Your task to perform on an android device: turn on bluetooth scan Image 0: 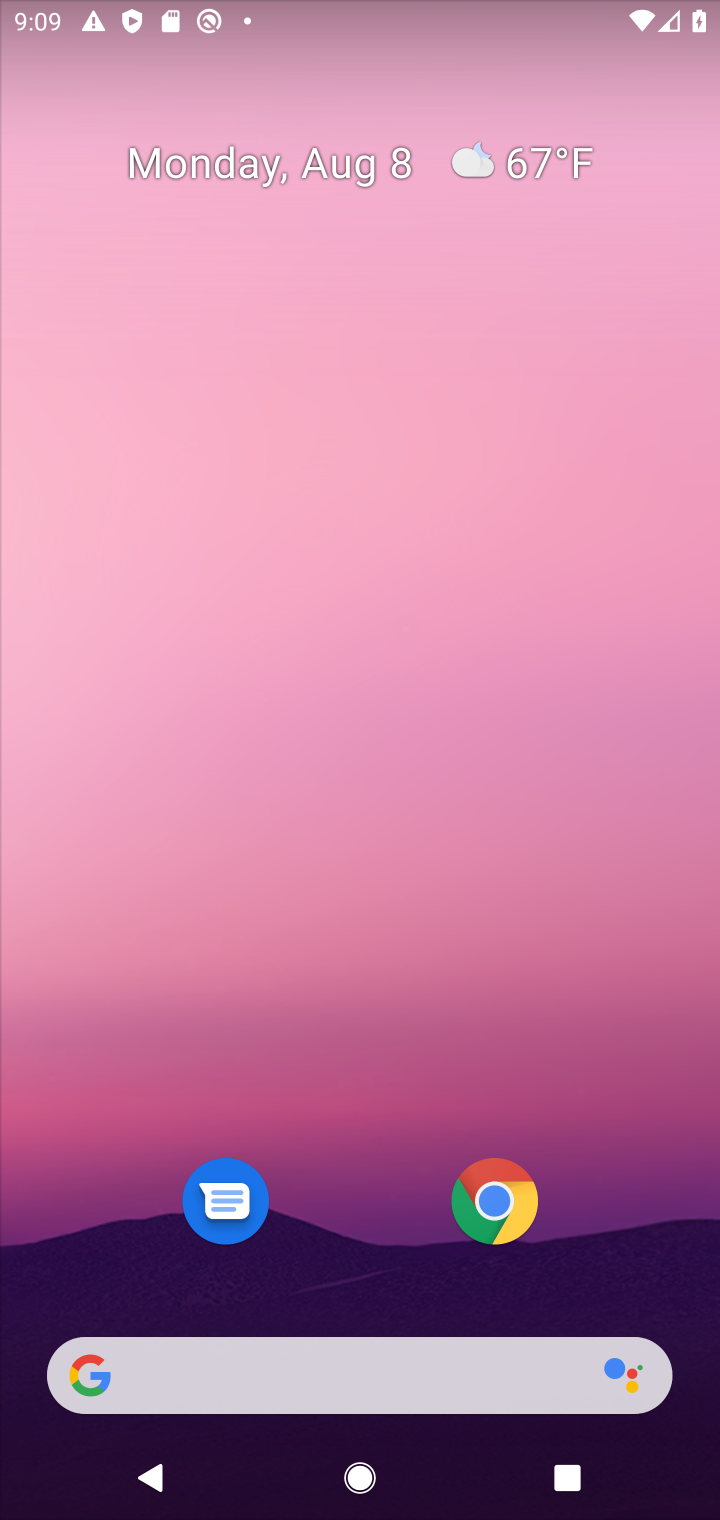
Step 0: press home button
Your task to perform on an android device: turn on bluetooth scan Image 1: 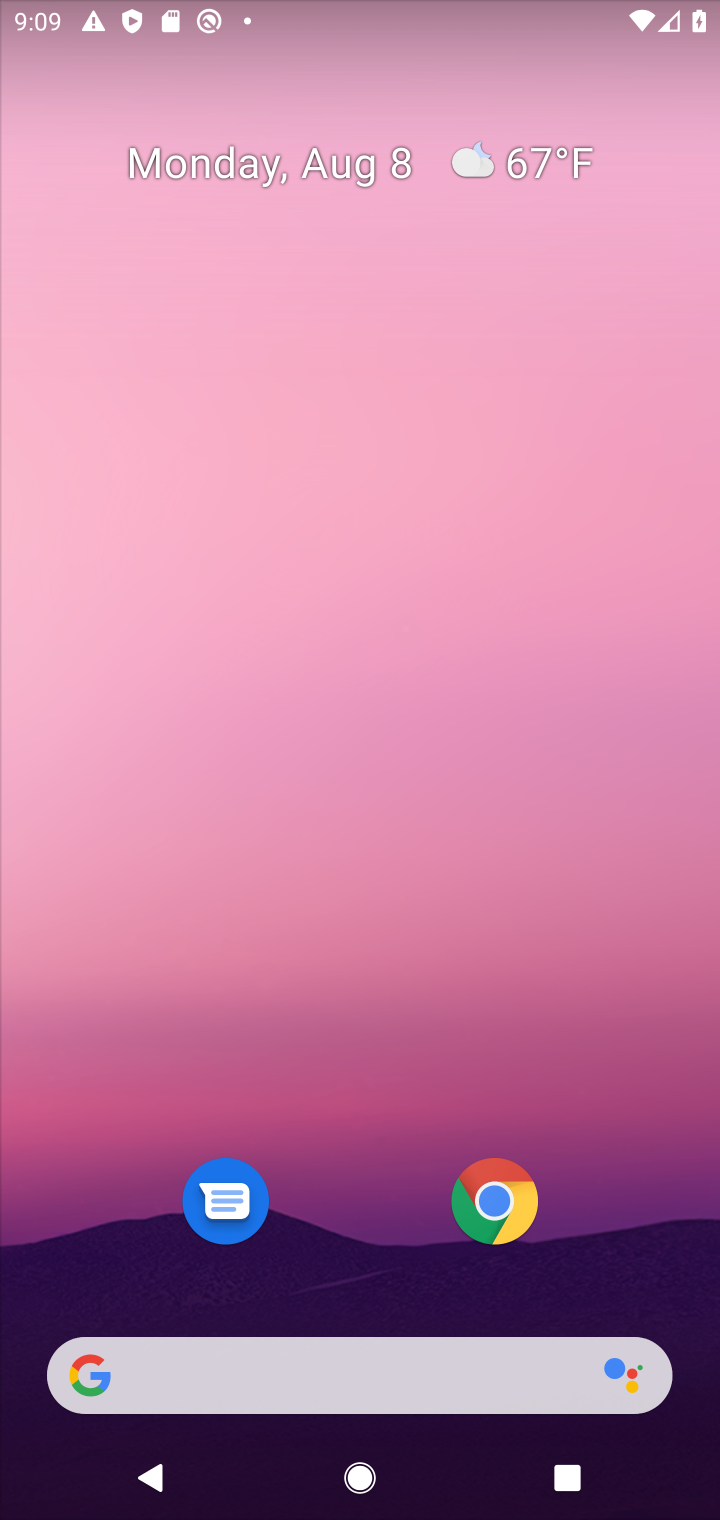
Step 1: drag from (613, 1182) to (625, 286)
Your task to perform on an android device: turn on bluetooth scan Image 2: 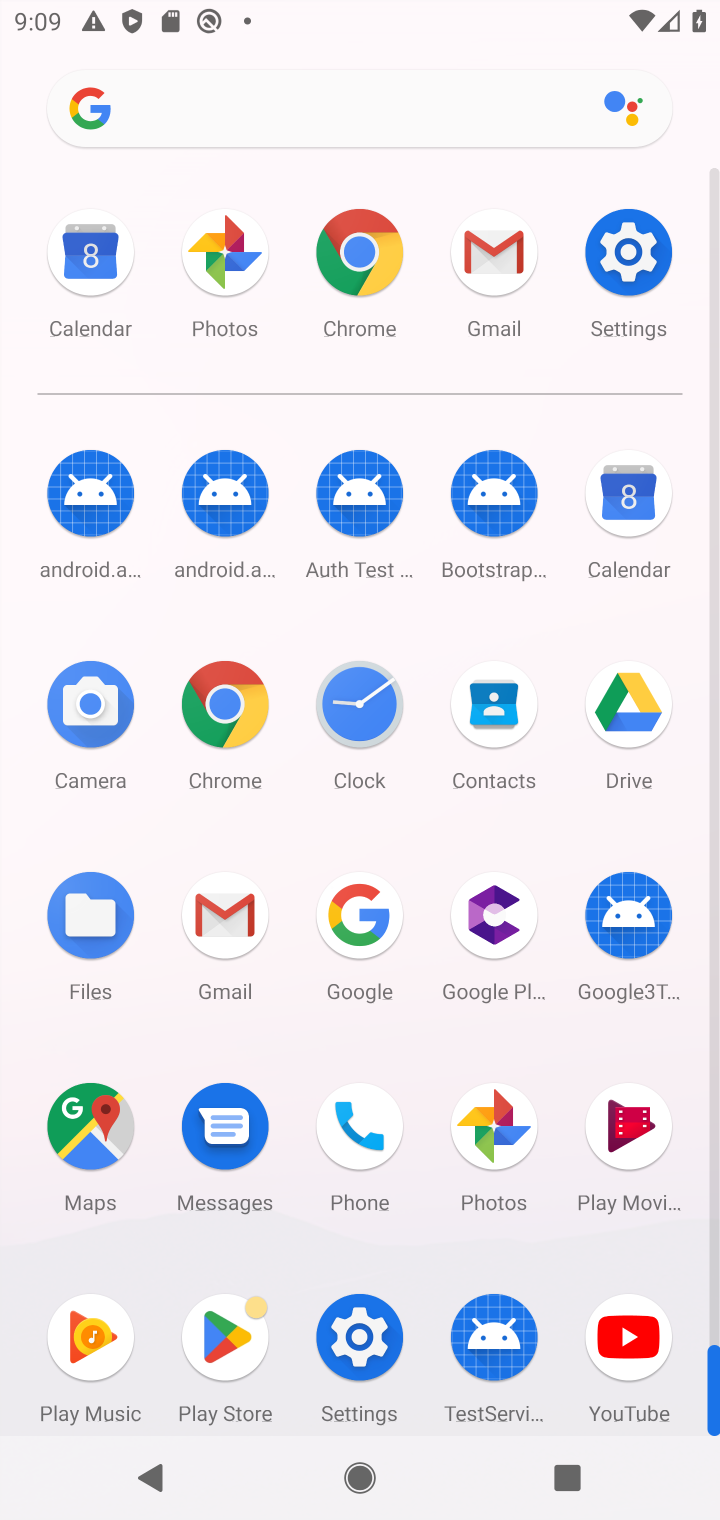
Step 2: click (649, 266)
Your task to perform on an android device: turn on bluetooth scan Image 3: 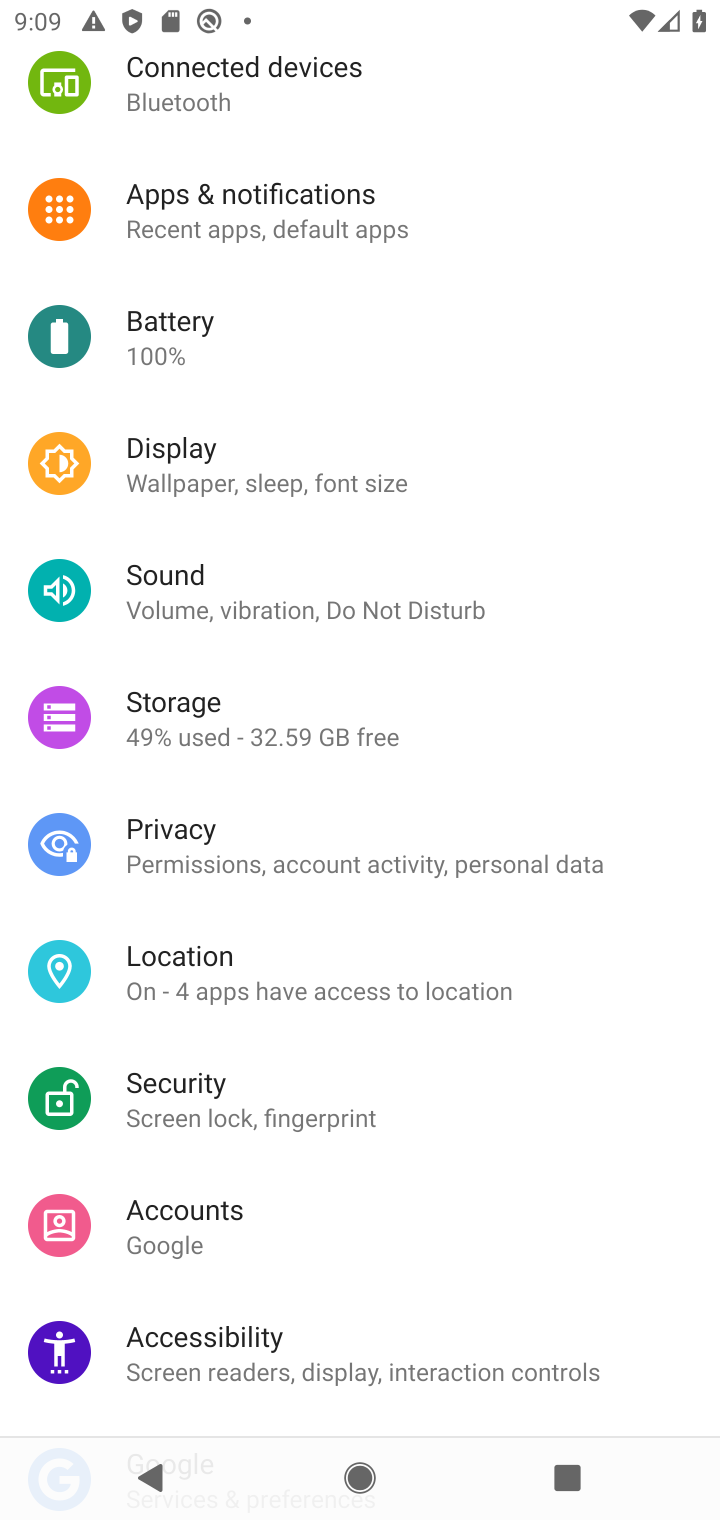
Step 3: drag from (616, 928) to (650, 562)
Your task to perform on an android device: turn on bluetooth scan Image 4: 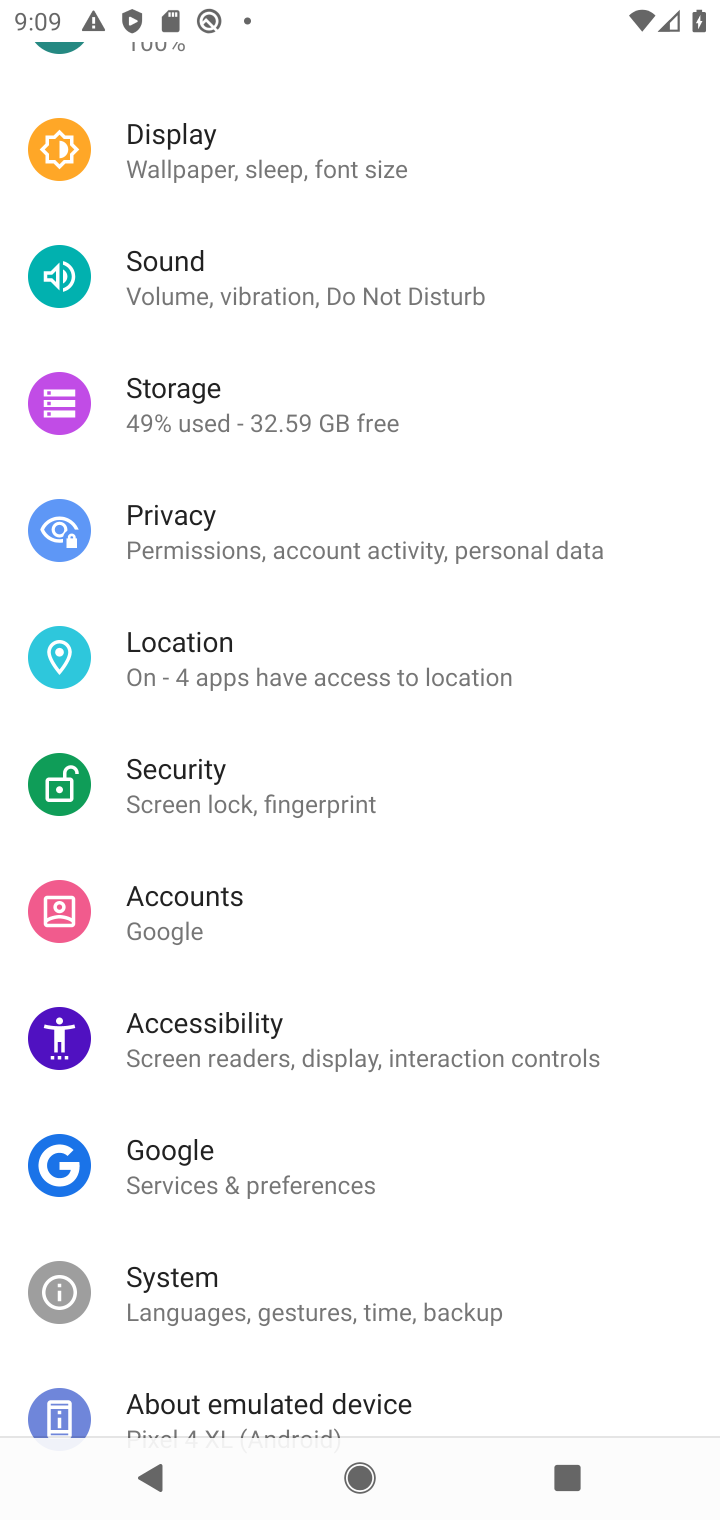
Step 4: click (416, 662)
Your task to perform on an android device: turn on bluetooth scan Image 5: 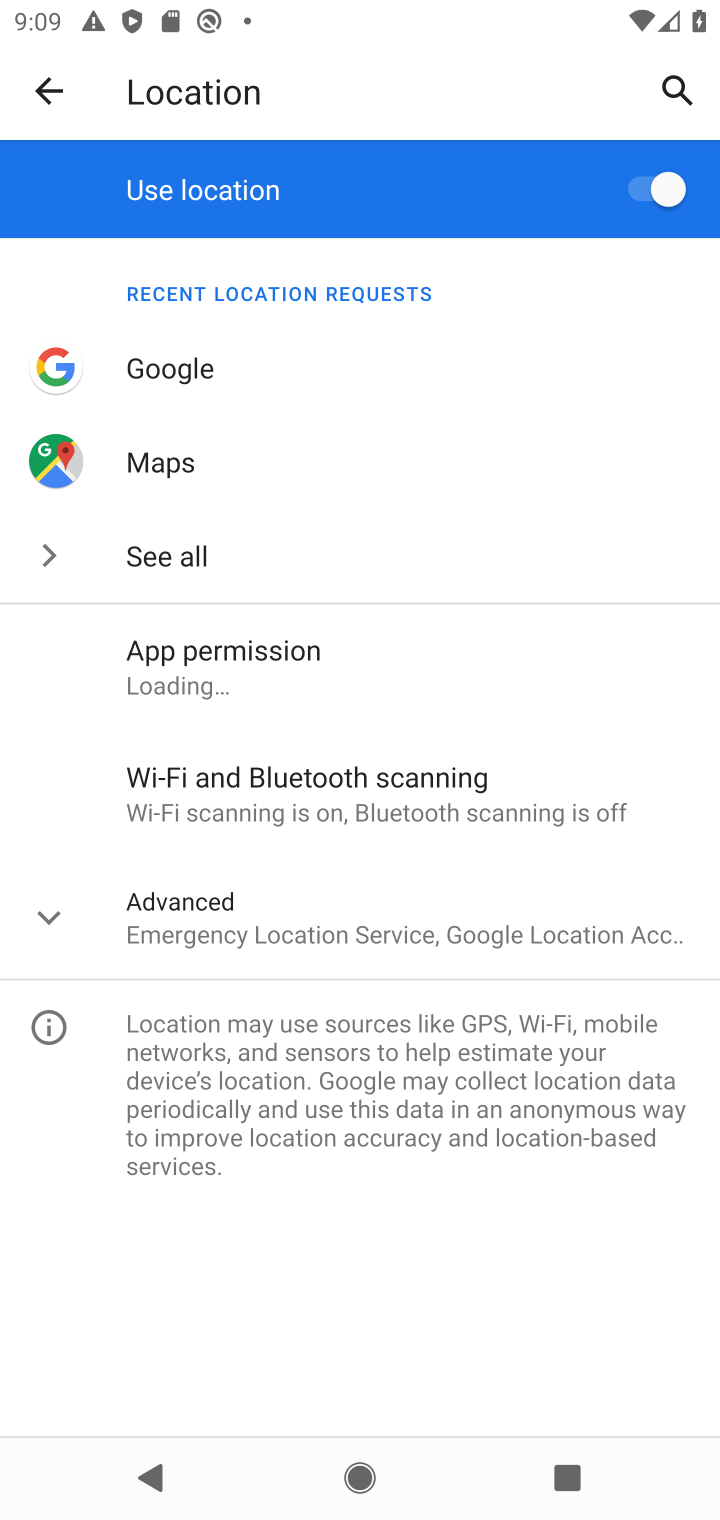
Step 5: click (358, 793)
Your task to perform on an android device: turn on bluetooth scan Image 6: 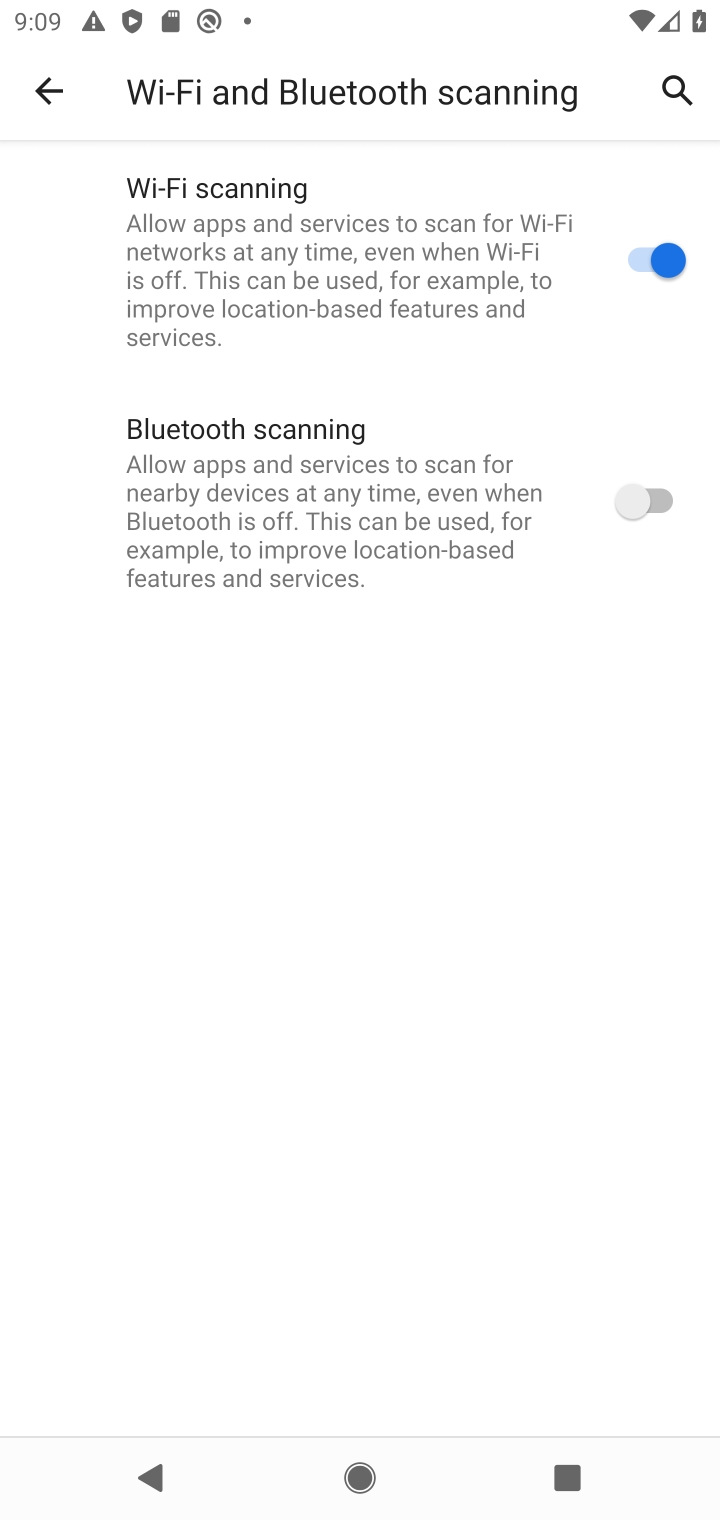
Step 6: click (646, 496)
Your task to perform on an android device: turn on bluetooth scan Image 7: 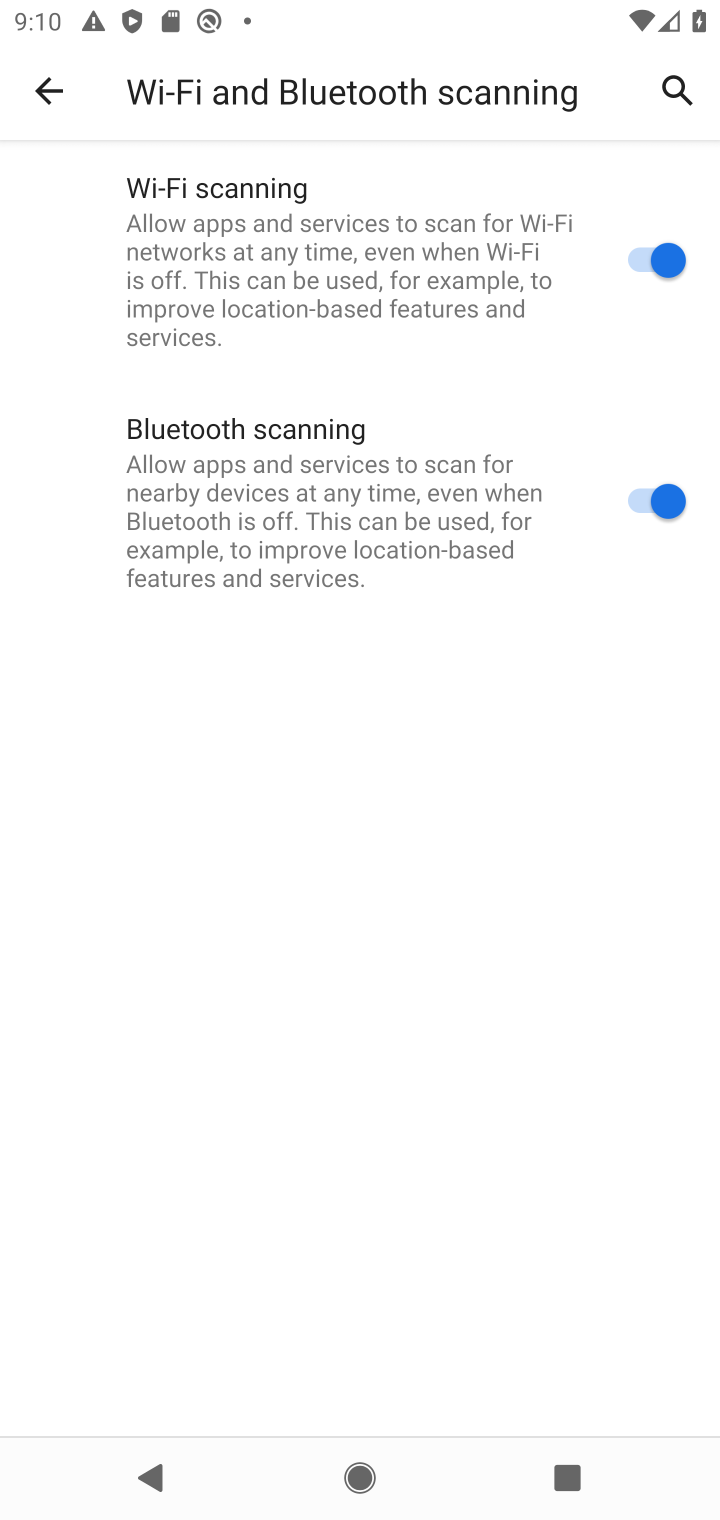
Step 7: task complete